Your task to perform on an android device: allow notifications from all sites in the chrome app Image 0: 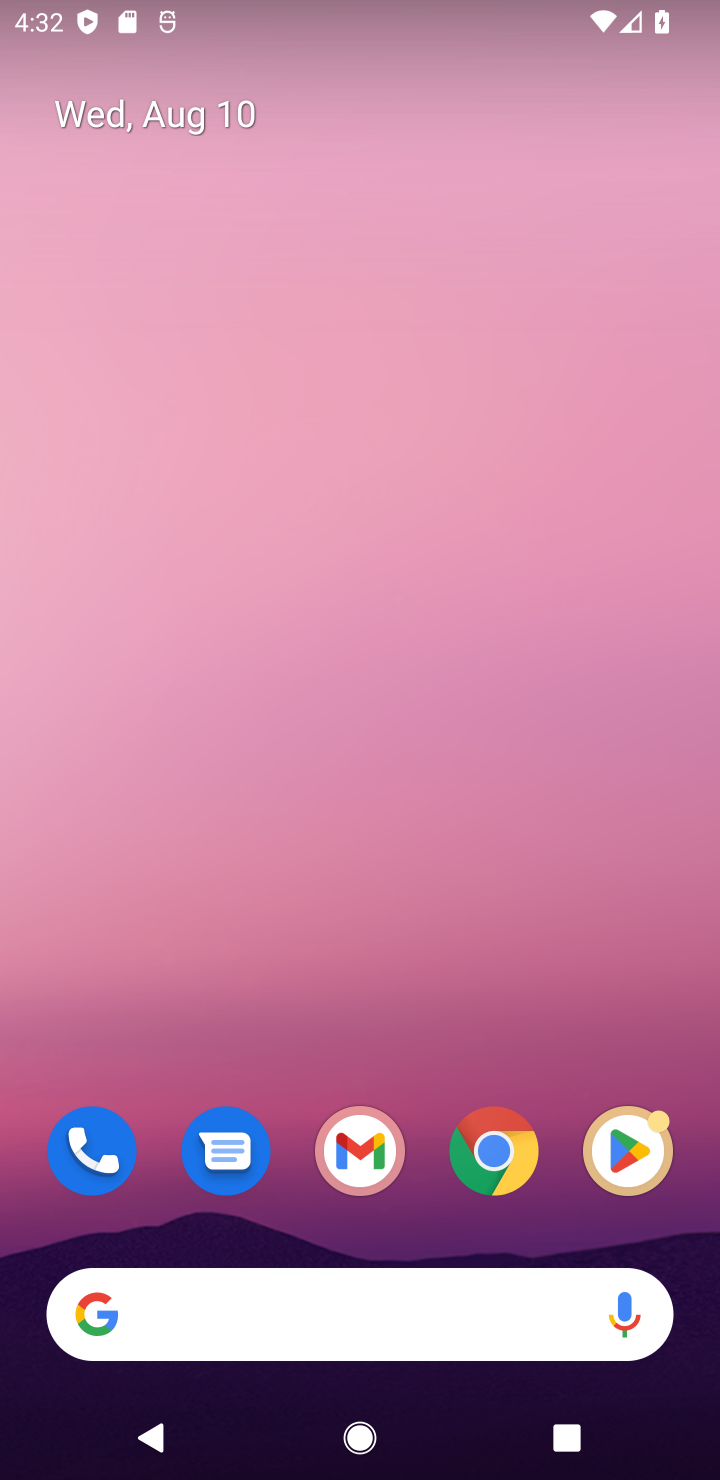
Step 0: click (508, 1165)
Your task to perform on an android device: allow notifications from all sites in the chrome app Image 1: 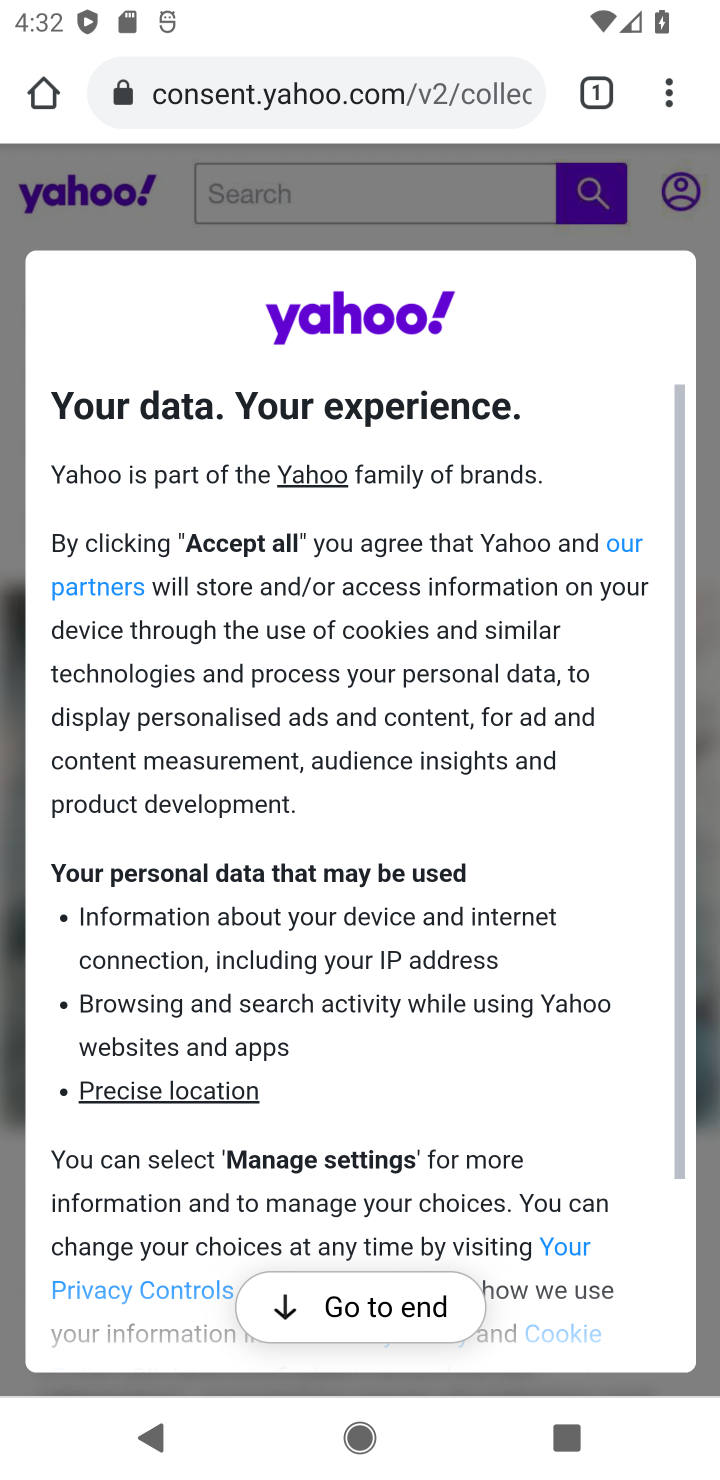
Step 1: click (385, 1294)
Your task to perform on an android device: allow notifications from all sites in the chrome app Image 2: 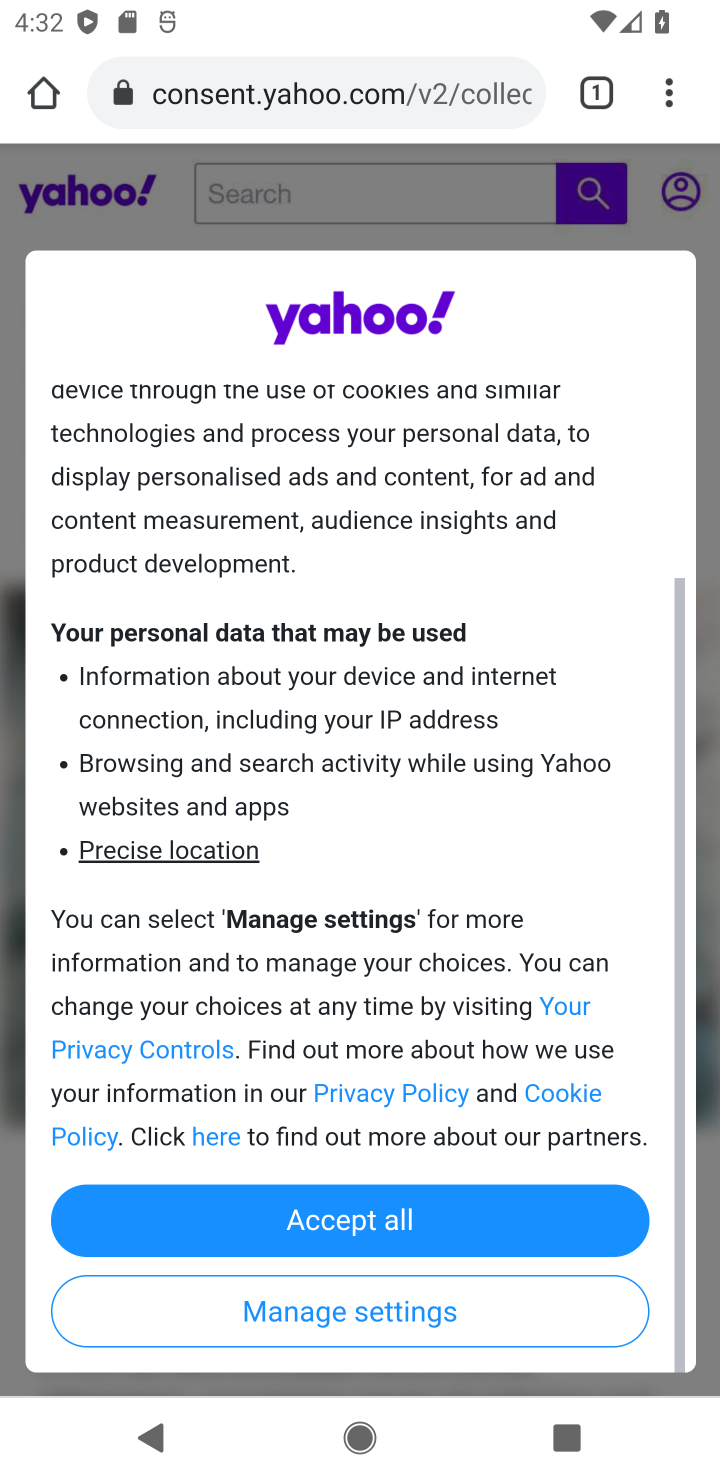
Step 2: click (389, 1222)
Your task to perform on an android device: allow notifications from all sites in the chrome app Image 3: 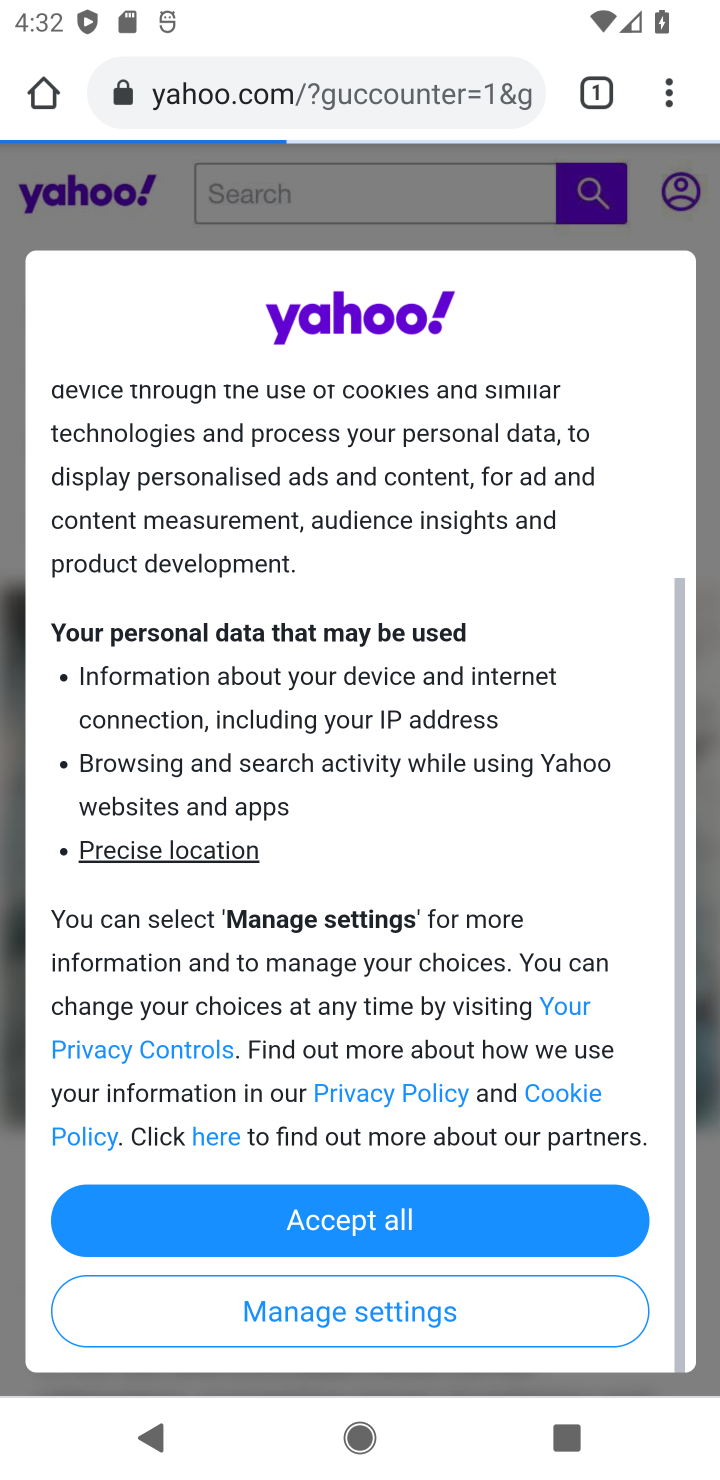
Step 3: click (389, 1222)
Your task to perform on an android device: allow notifications from all sites in the chrome app Image 4: 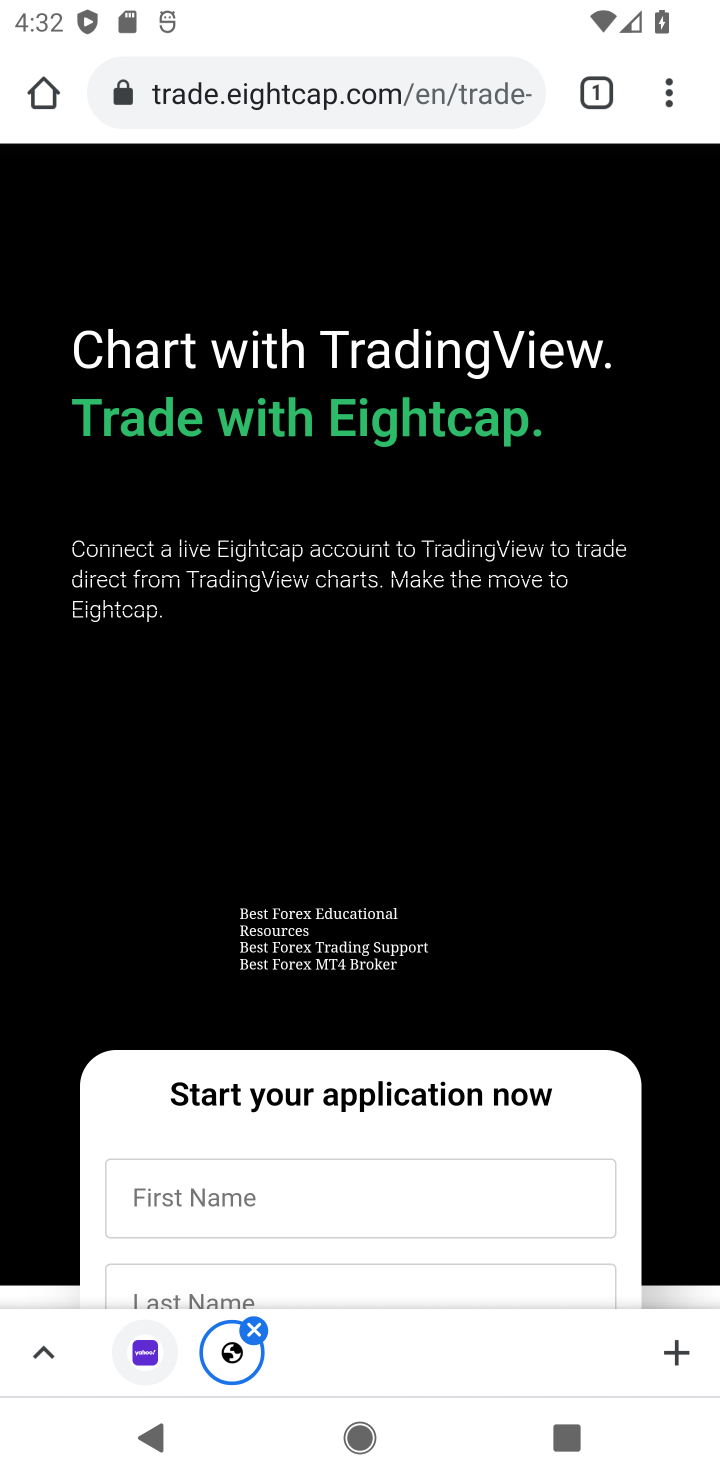
Step 4: task complete